Your task to perform on an android device: Show me popular games on the Play Store Image 0: 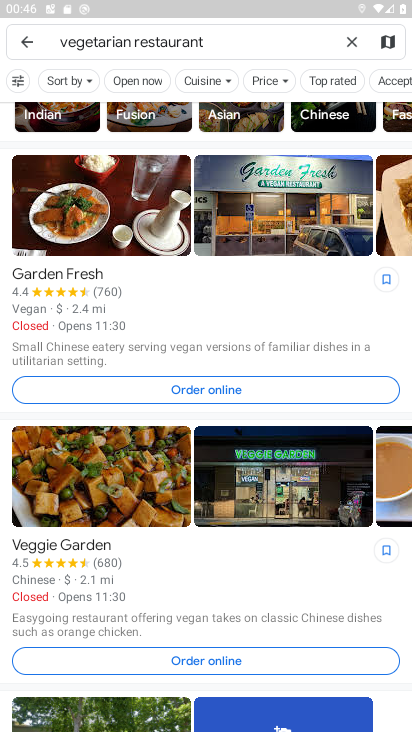
Step 0: press home button
Your task to perform on an android device: Show me popular games on the Play Store Image 1: 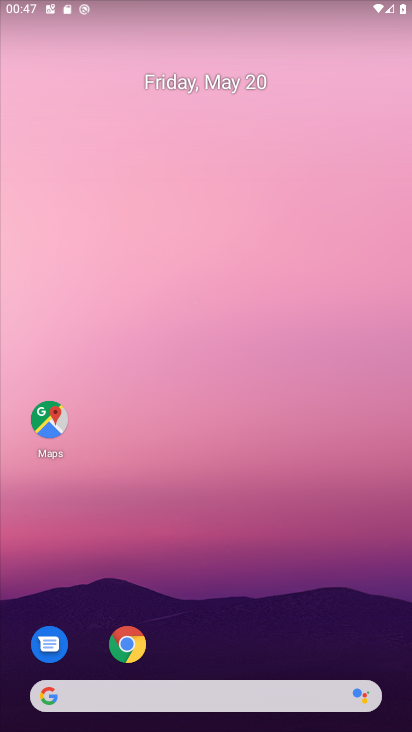
Step 1: drag from (191, 652) to (196, 397)
Your task to perform on an android device: Show me popular games on the Play Store Image 2: 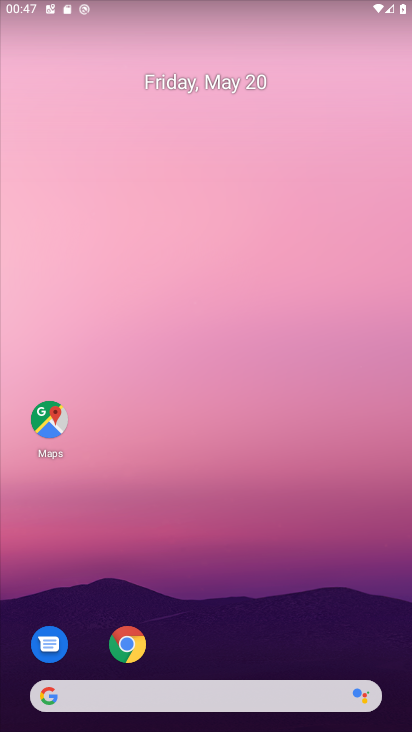
Step 2: drag from (236, 683) to (236, 301)
Your task to perform on an android device: Show me popular games on the Play Store Image 3: 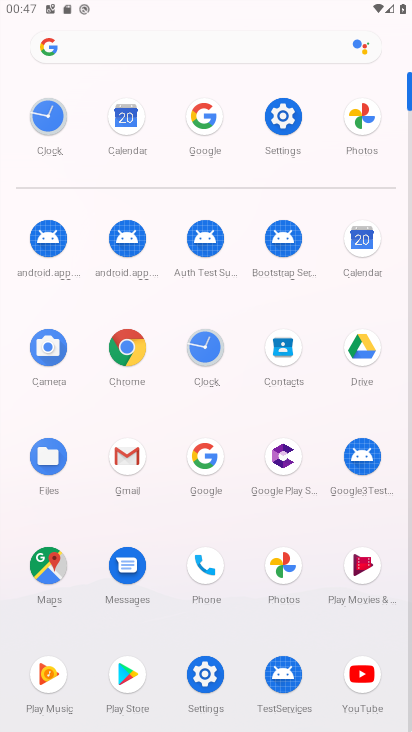
Step 3: click (119, 679)
Your task to perform on an android device: Show me popular games on the Play Store Image 4: 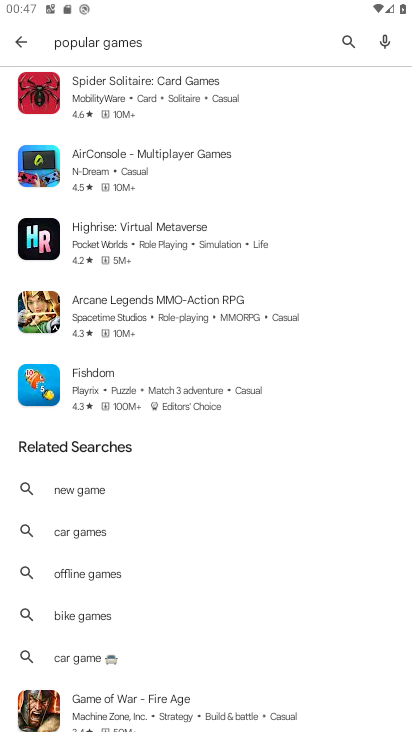
Step 4: task complete